Your task to perform on an android device: open app "VLC for Android" (install if not already installed) and go to login screen Image 0: 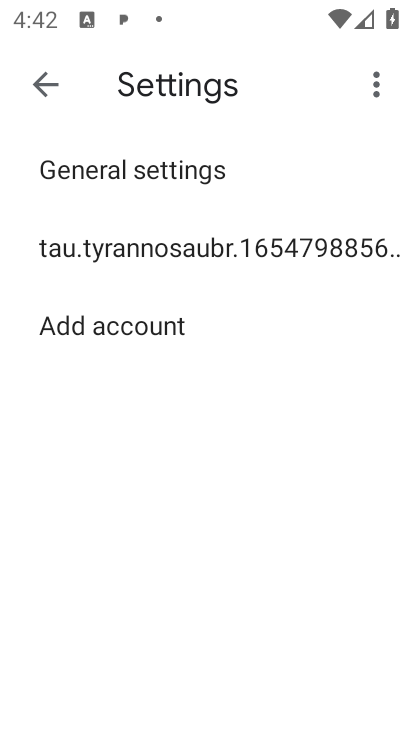
Step 0: press home button
Your task to perform on an android device: open app "VLC for Android" (install if not already installed) and go to login screen Image 1: 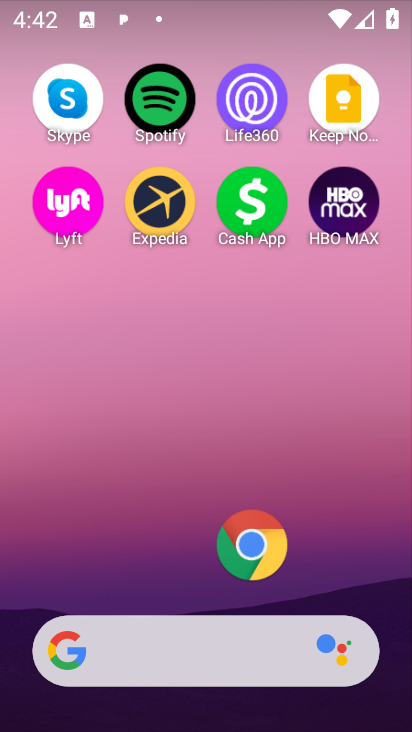
Step 1: drag from (193, 515) to (207, 0)
Your task to perform on an android device: open app "VLC for Android" (install if not already installed) and go to login screen Image 2: 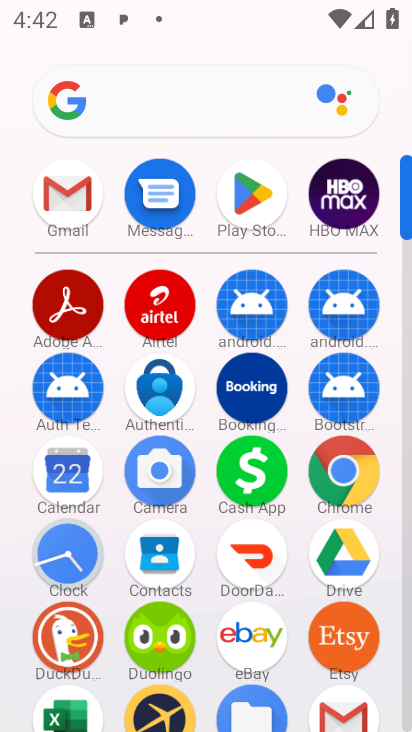
Step 2: click (254, 190)
Your task to perform on an android device: open app "VLC for Android" (install if not already installed) and go to login screen Image 3: 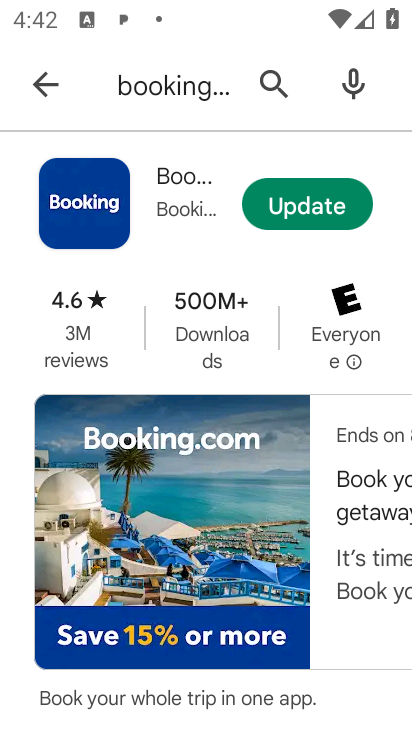
Step 3: click (262, 87)
Your task to perform on an android device: open app "VLC for Android" (install if not already installed) and go to login screen Image 4: 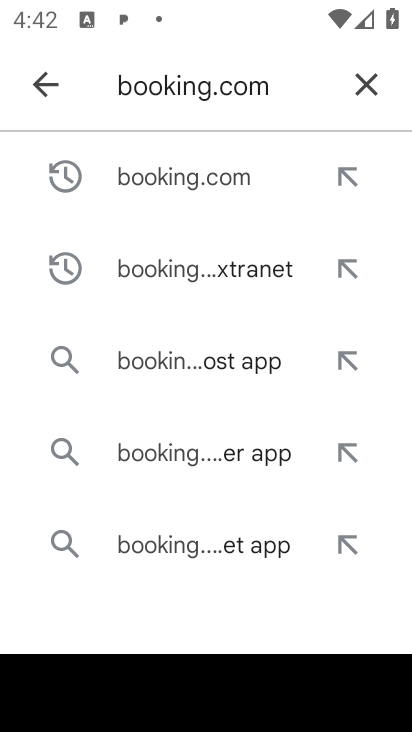
Step 4: click (356, 69)
Your task to perform on an android device: open app "VLC for Android" (install if not already installed) and go to login screen Image 5: 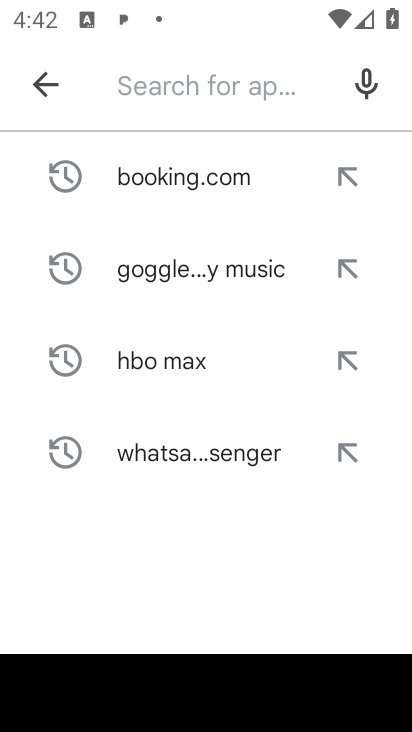
Step 5: click (161, 88)
Your task to perform on an android device: open app "VLC for Android" (install if not already installed) and go to login screen Image 6: 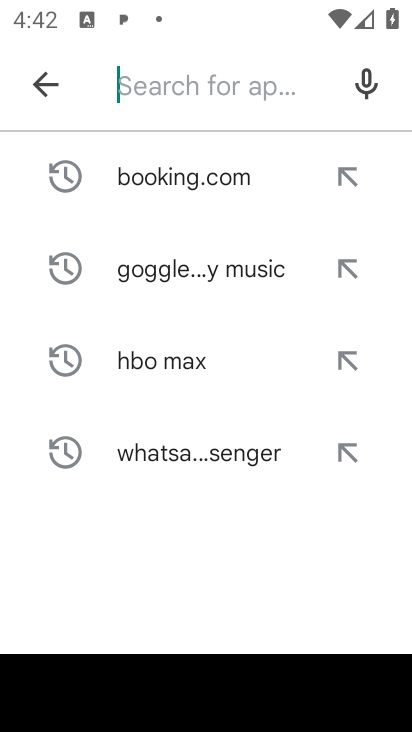
Step 6: type "VLC for Android"
Your task to perform on an android device: open app "VLC for Android" (install if not already installed) and go to login screen Image 7: 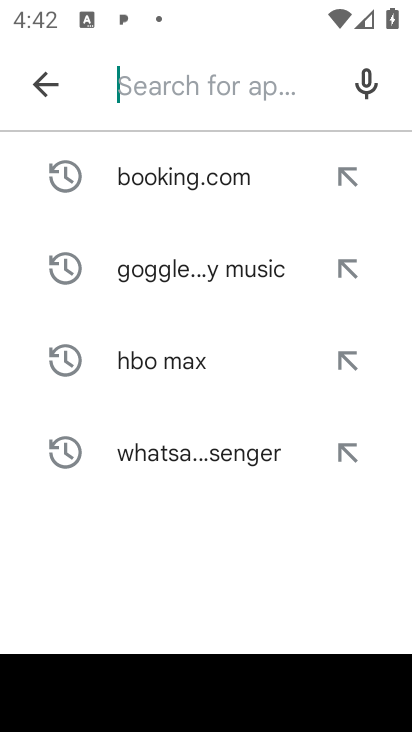
Step 7: click (178, 582)
Your task to perform on an android device: open app "VLC for Android" (install if not already installed) and go to login screen Image 8: 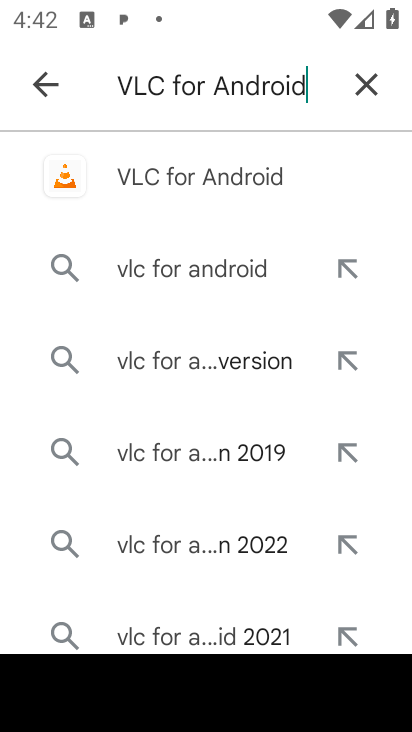
Step 8: click (218, 169)
Your task to perform on an android device: open app "VLC for Android" (install if not already installed) and go to login screen Image 9: 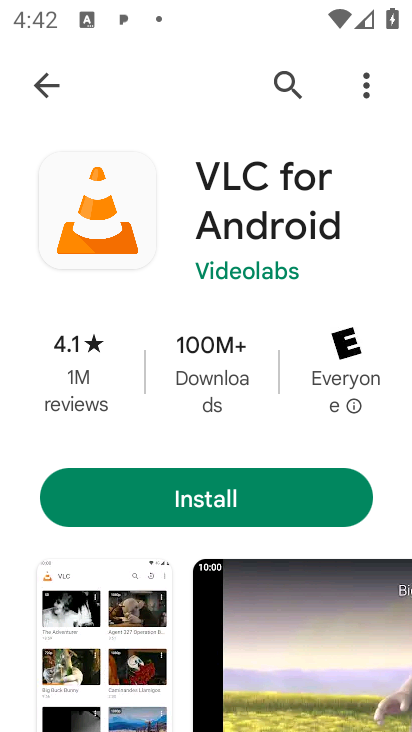
Step 9: click (163, 507)
Your task to perform on an android device: open app "VLC for Android" (install if not already installed) and go to login screen Image 10: 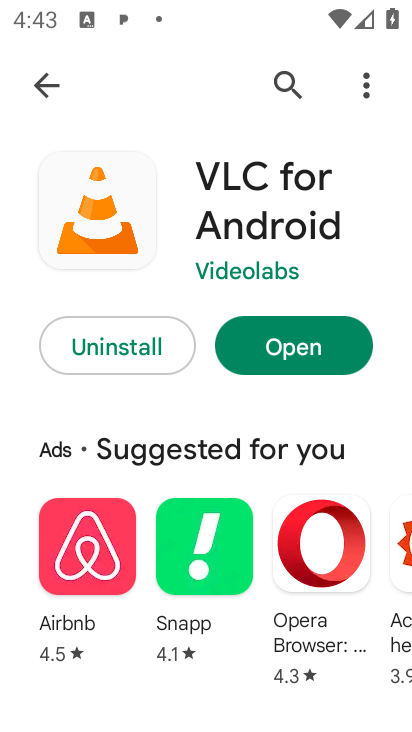
Step 10: click (289, 347)
Your task to perform on an android device: open app "VLC for Android" (install if not already installed) and go to login screen Image 11: 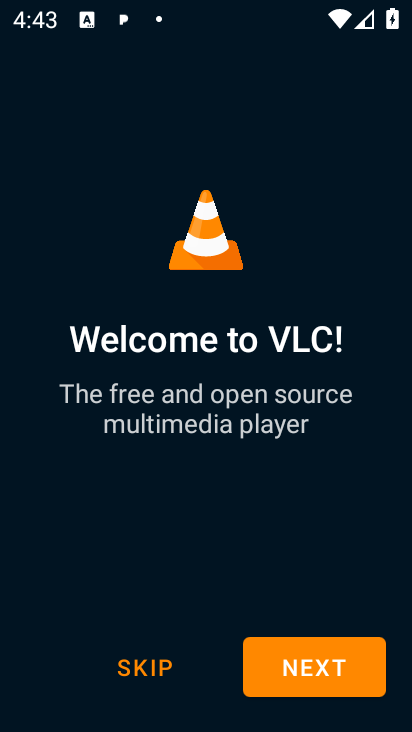
Step 11: click (124, 660)
Your task to perform on an android device: open app "VLC for Android" (install if not already installed) and go to login screen Image 12: 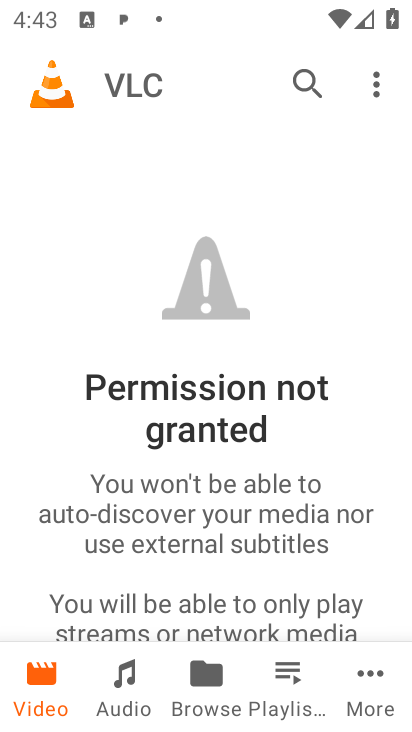
Step 12: click (390, 668)
Your task to perform on an android device: open app "VLC for Android" (install if not already installed) and go to login screen Image 13: 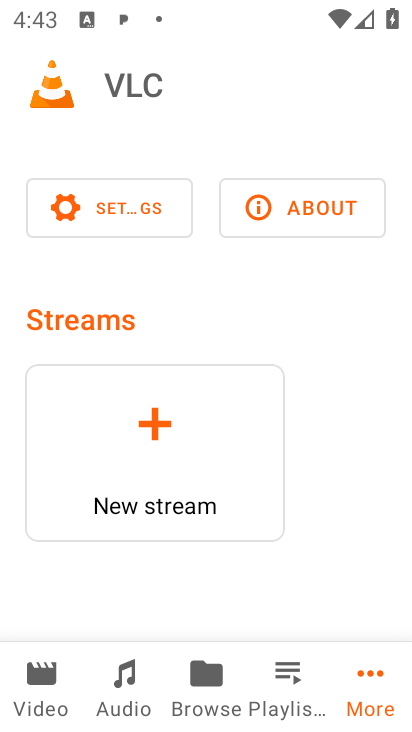
Step 13: click (46, 686)
Your task to perform on an android device: open app "VLC for Android" (install if not already installed) and go to login screen Image 14: 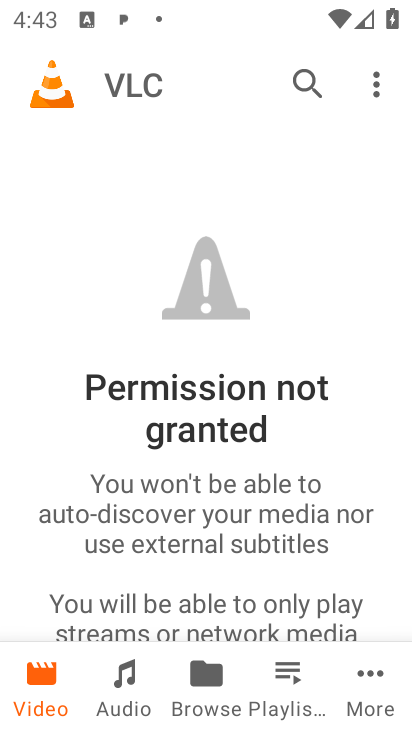
Step 14: click (369, 92)
Your task to perform on an android device: open app "VLC for Android" (install if not already installed) and go to login screen Image 15: 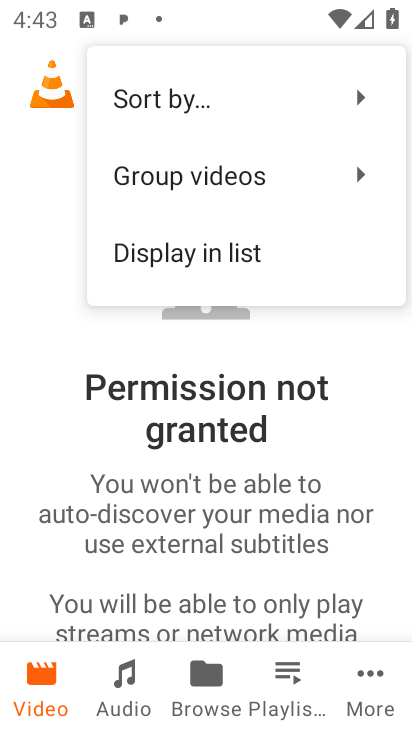
Step 15: click (166, 353)
Your task to perform on an android device: open app "VLC for Android" (install if not already installed) and go to login screen Image 16: 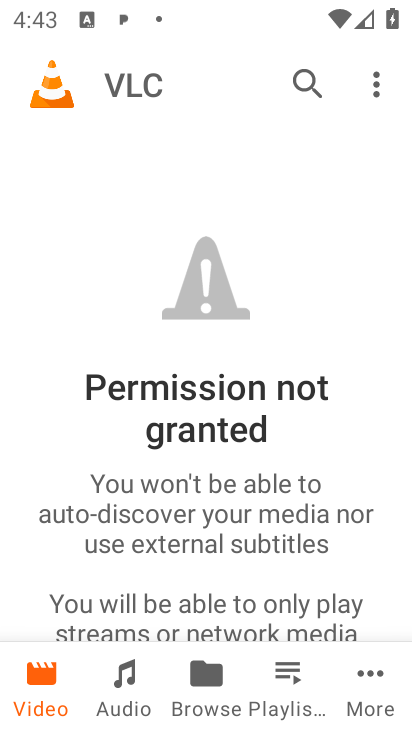
Step 16: click (62, 82)
Your task to perform on an android device: open app "VLC for Android" (install if not already installed) and go to login screen Image 17: 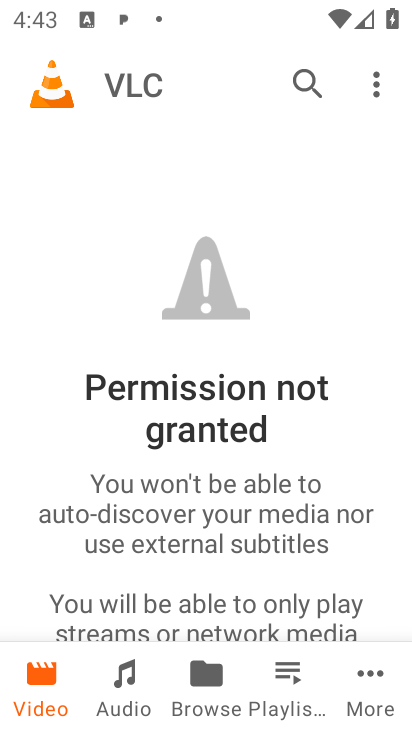
Step 17: click (180, 82)
Your task to perform on an android device: open app "VLC for Android" (install if not already installed) and go to login screen Image 18: 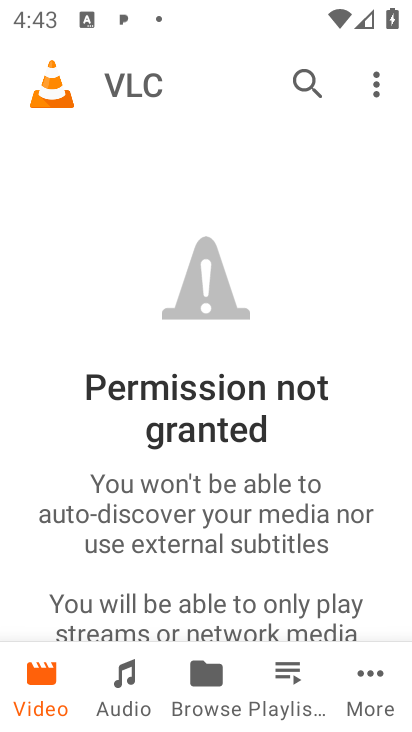
Step 18: click (140, 87)
Your task to perform on an android device: open app "VLC for Android" (install if not already installed) and go to login screen Image 19: 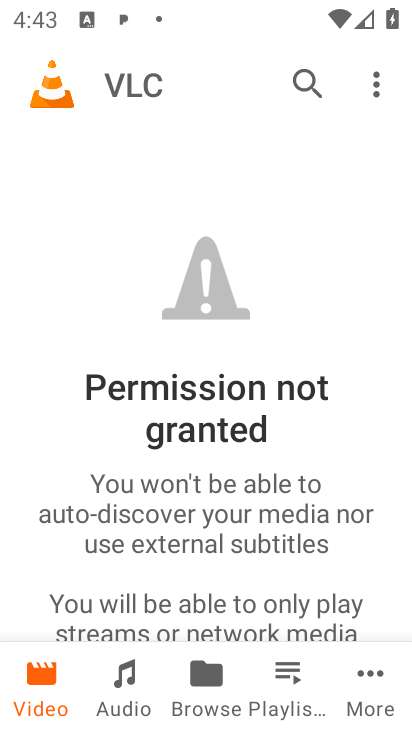
Step 19: task complete